Your task to perform on an android device: Open calendar and show me the second week of next month Image 0: 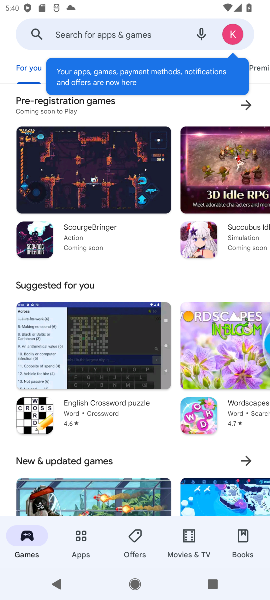
Step 0: press home button
Your task to perform on an android device: Open calendar and show me the second week of next month Image 1: 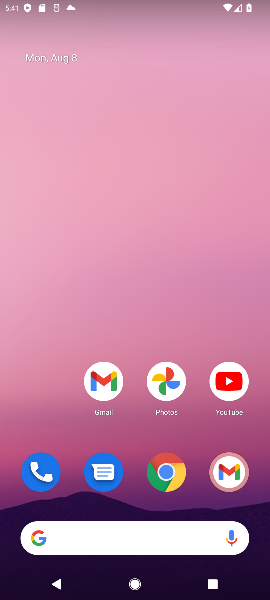
Step 1: drag from (151, 489) to (124, 143)
Your task to perform on an android device: Open calendar and show me the second week of next month Image 2: 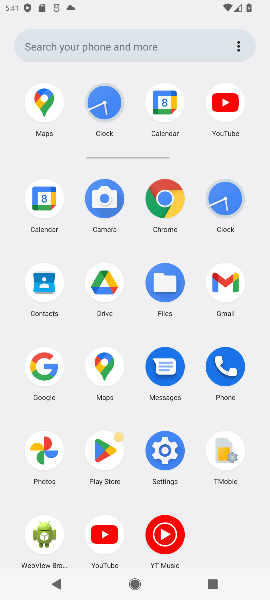
Step 2: click (166, 101)
Your task to perform on an android device: Open calendar and show me the second week of next month Image 3: 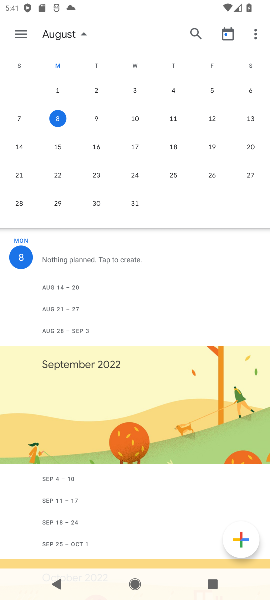
Step 3: click (85, 39)
Your task to perform on an android device: Open calendar and show me the second week of next month Image 4: 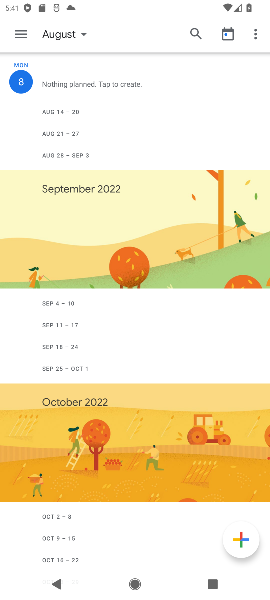
Step 4: click (86, 39)
Your task to perform on an android device: Open calendar and show me the second week of next month Image 5: 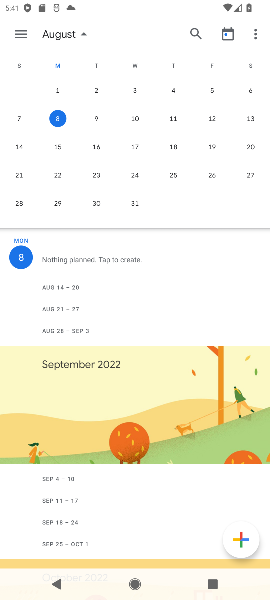
Step 5: drag from (234, 155) to (3, 183)
Your task to perform on an android device: Open calendar and show me the second week of next month Image 6: 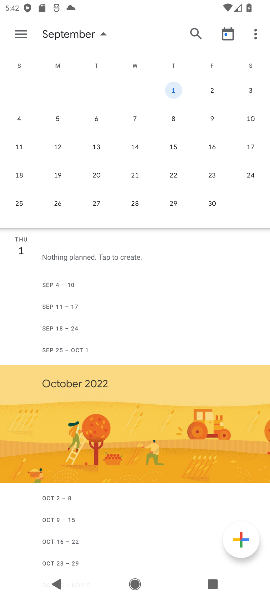
Step 6: click (56, 114)
Your task to perform on an android device: Open calendar and show me the second week of next month Image 7: 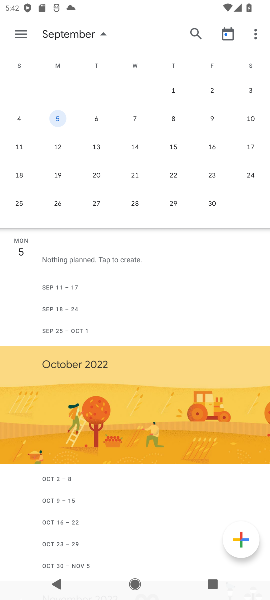
Step 7: click (97, 124)
Your task to perform on an android device: Open calendar and show me the second week of next month Image 8: 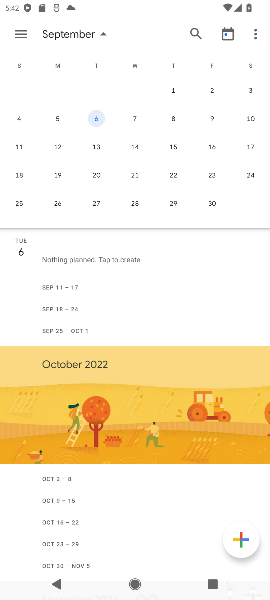
Step 8: click (133, 117)
Your task to perform on an android device: Open calendar and show me the second week of next month Image 9: 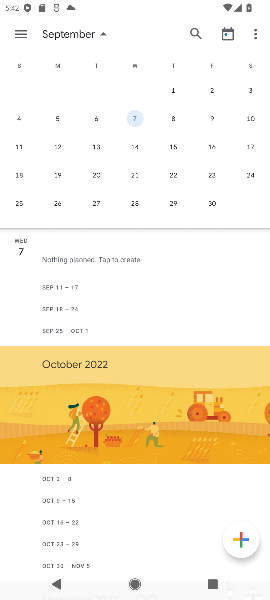
Step 9: click (174, 120)
Your task to perform on an android device: Open calendar and show me the second week of next month Image 10: 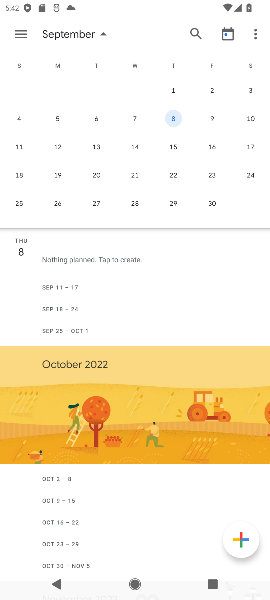
Step 10: click (212, 118)
Your task to perform on an android device: Open calendar and show me the second week of next month Image 11: 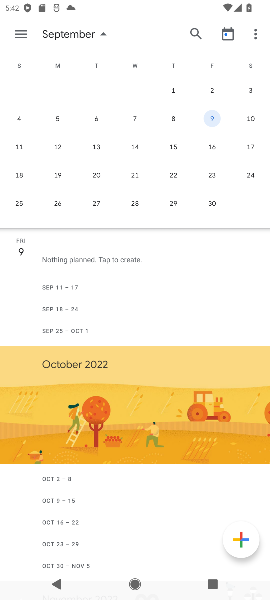
Step 11: click (252, 123)
Your task to perform on an android device: Open calendar and show me the second week of next month Image 12: 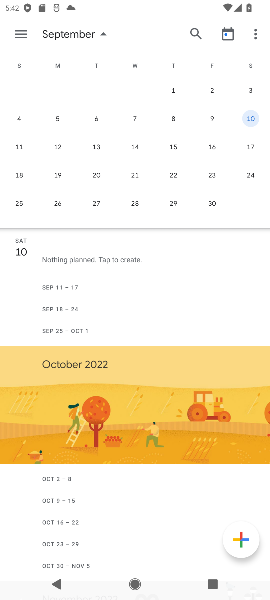
Step 12: click (24, 146)
Your task to perform on an android device: Open calendar and show me the second week of next month Image 13: 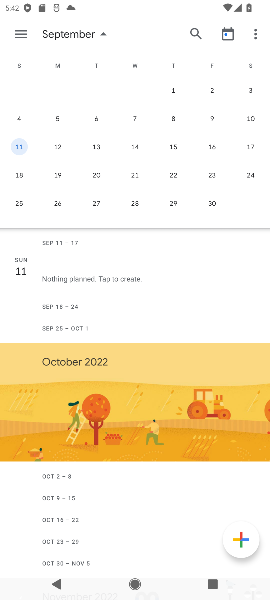
Step 13: task complete